Your task to perform on an android device: turn on airplane mode Image 0: 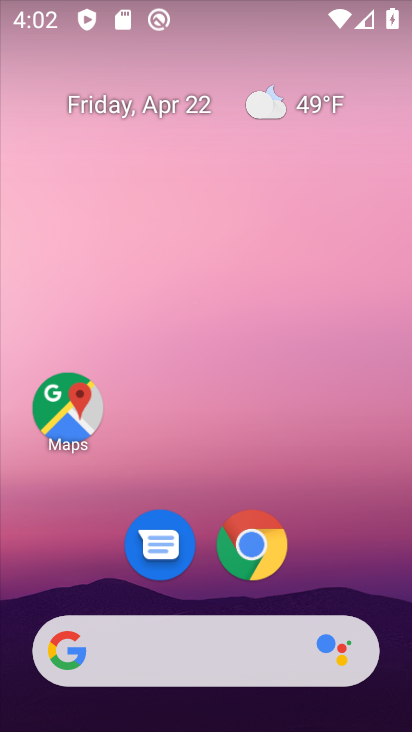
Step 0: drag from (359, 488) to (331, 63)
Your task to perform on an android device: turn on airplane mode Image 1: 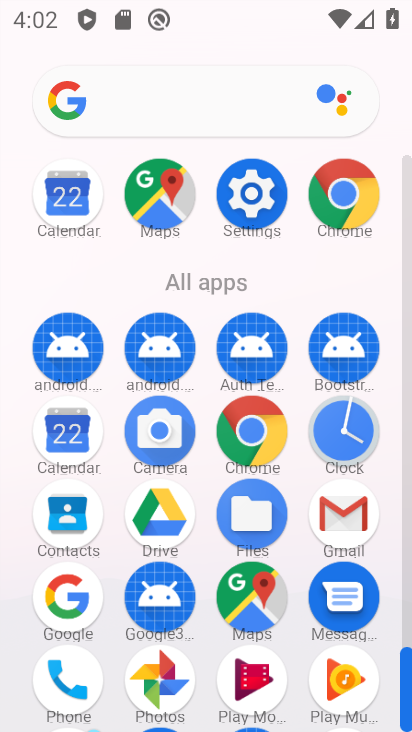
Step 1: click (249, 204)
Your task to perform on an android device: turn on airplane mode Image 2: 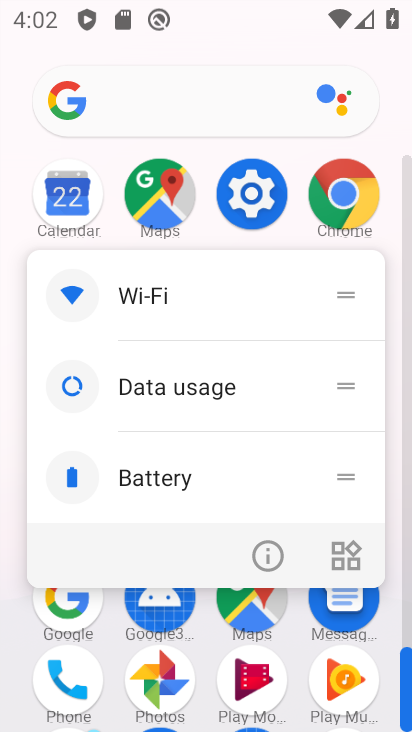
Step 2: click (249, 204)
Your task to perform on an android device: turn on airplane mode Image 3: 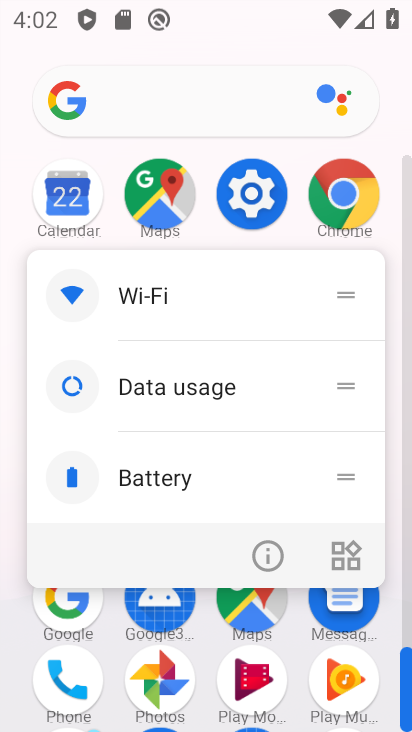
Step 3: click (249, 204)
Your task to perform on an android device: turn on airplane mode Image 4: 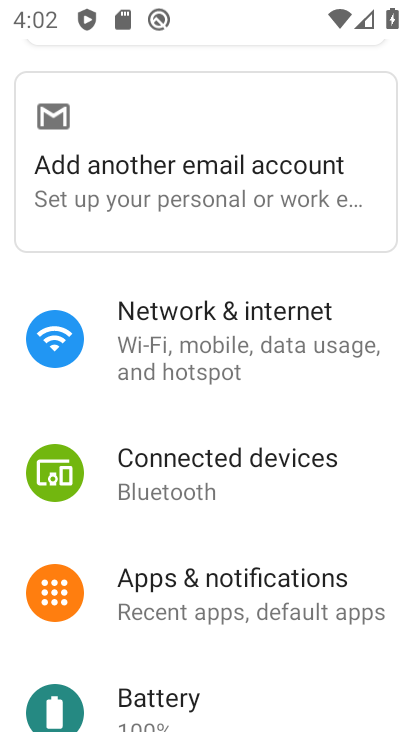
Step 4: click (150, 339)
Your task to perform on an android device: turn on airplane mode Image 5: 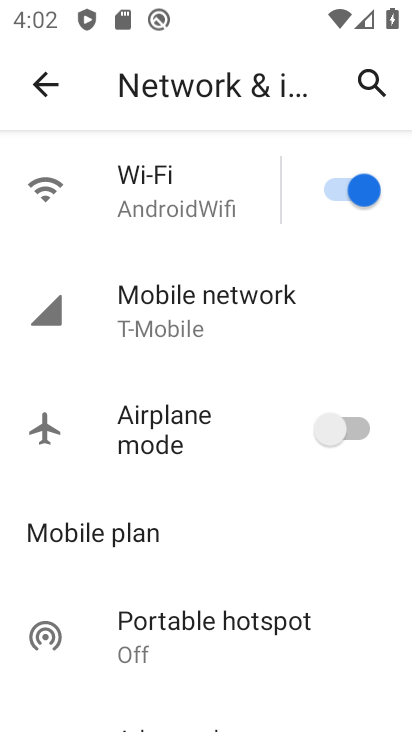
Step 5: click (345, 435)
Your task to perform on an android device: turn on airplane mode Image 6: 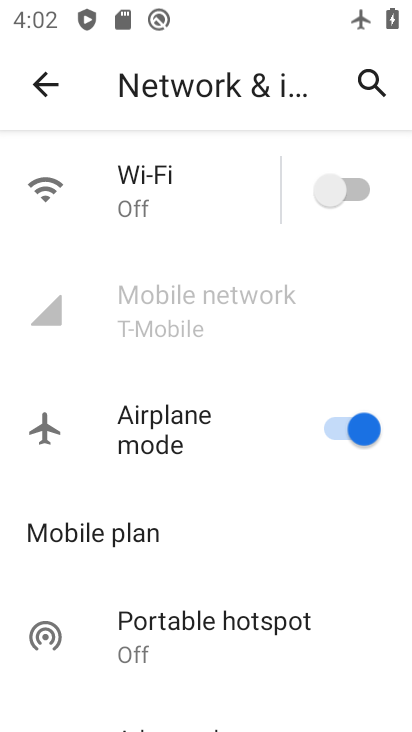
Step 6: task complete